Your task to perform on an android device: toggle javascript in the chrome app Image 0: 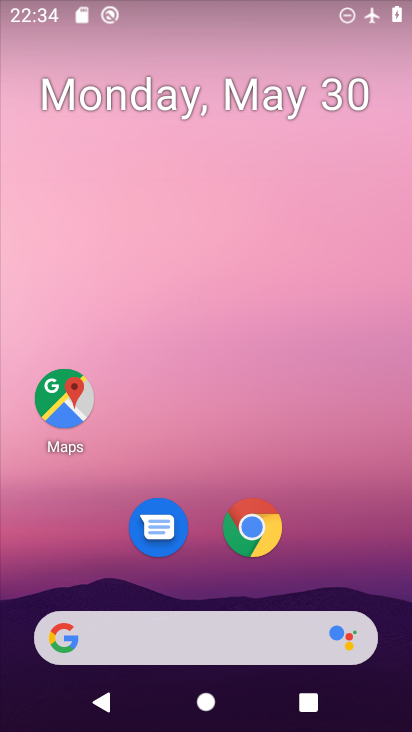
Step 0: drag from (336, 571) to (329, 278)
Your task to perform on an android device: toggle javascript in the chrome app Image 1: 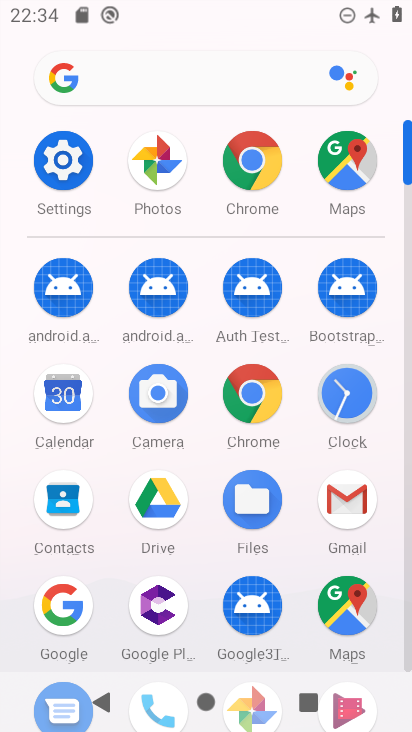
Step 1: click (248, 375)
Your task to perform on an android device: toggle javascript in the chrome app Image 2: 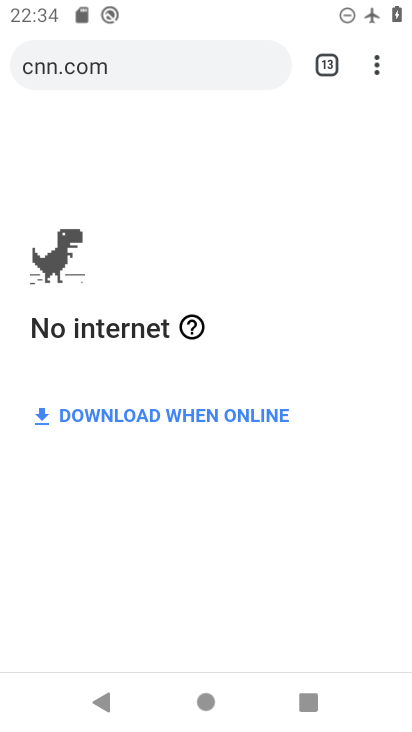
Step 2: click (370, 64)
Your task to perform on an android device: toggle javascript in the chrome app Image 3: 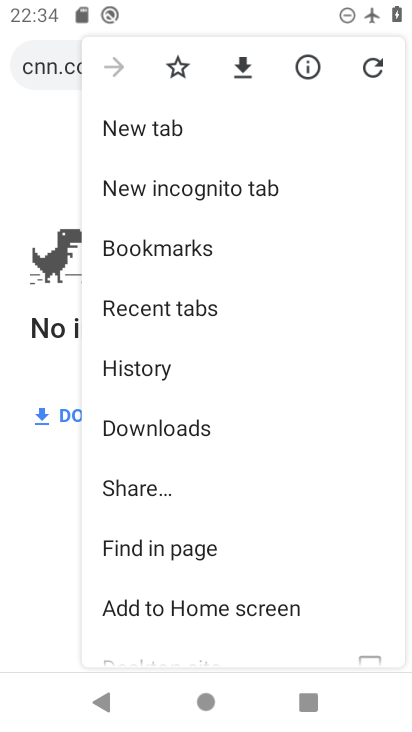
Step 3: drag from (202, 539) to (246, 306)
Your task to perform on an android device: toggle javascript in the chrome app Image 4: 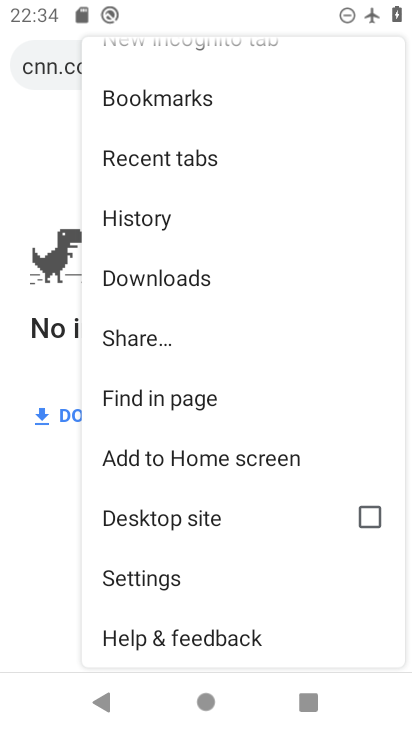
Step 4: click (201, 569)
Your task to perform on an android device: toggle javascript in the chrome app Image 5: 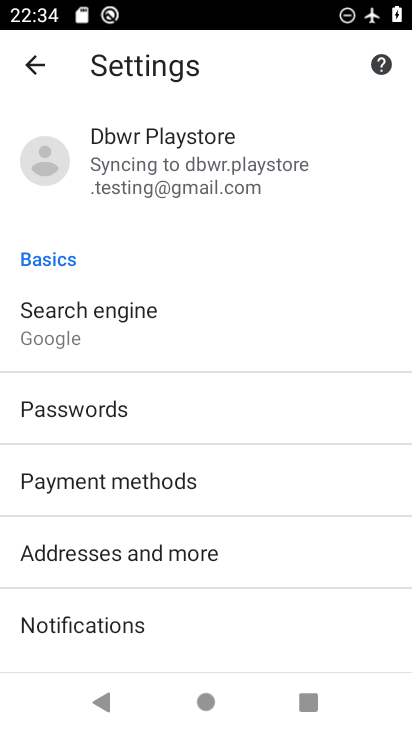
Step 5: drag from (180, 600) to (215, 241)
Your task to perform on an android device: toggle javascript in the chrome app Image 6: 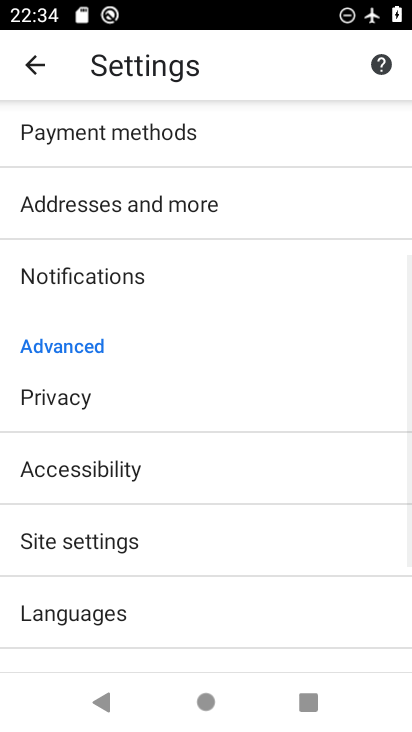
Step 6: drag from (223, 555) to (303, 255)
Your task to perform on an android device: toggle javascript in the chrome app Image 7: 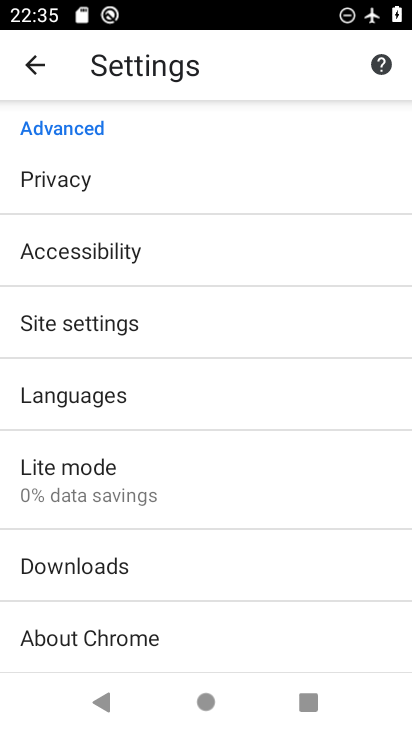
Step 7: drag from (221, 568) to (277, 284)
Your task to perform on an android device: toggle javascript in the chrome app Image 8: 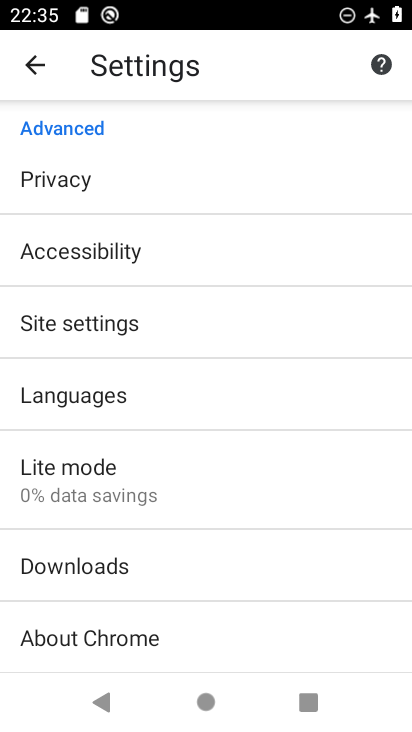
Step 8: drag from (212, 570) to (235, 459)
Your task to perform on an android device: toggle javascript in the chrome app Image 9: 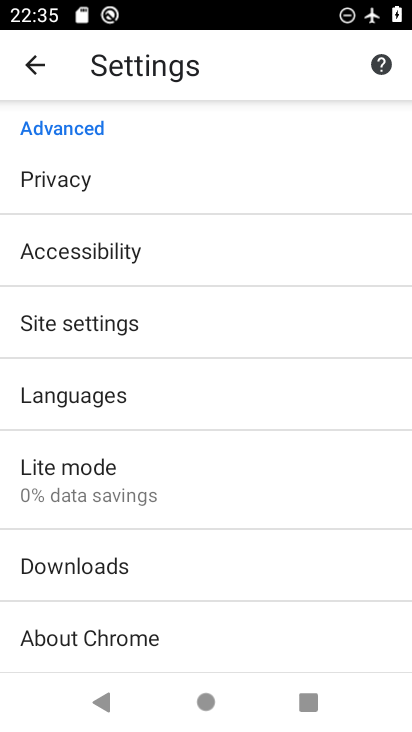
Step 9: click (203, 300)
Your task to perform on an android device: toggle javascript in the chrome app Image 10: 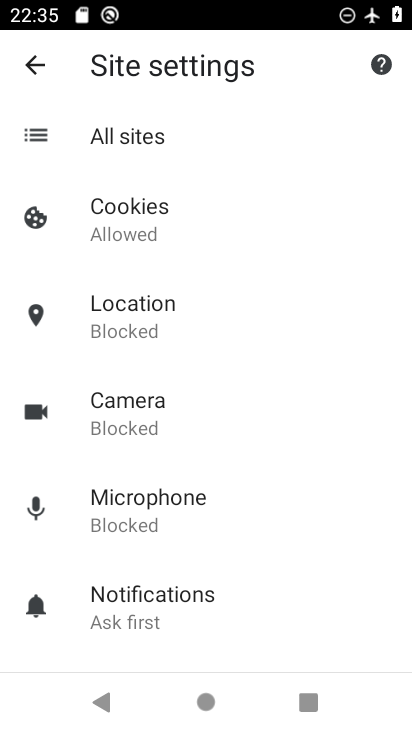
Step 10: drag from (217, 591) to (247, 309)
Your task to perform on an android device: toggle javascript in the chrome app Image 11: 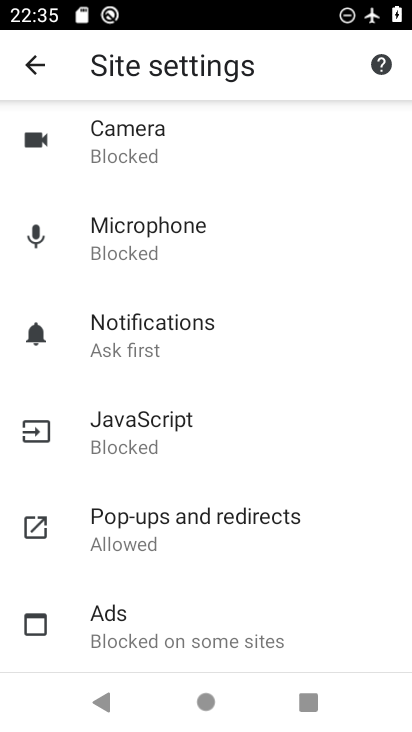
Step 11: click (160, 439)
Your task to perform on an android device: toggle javascript in the chrome app Image 12: 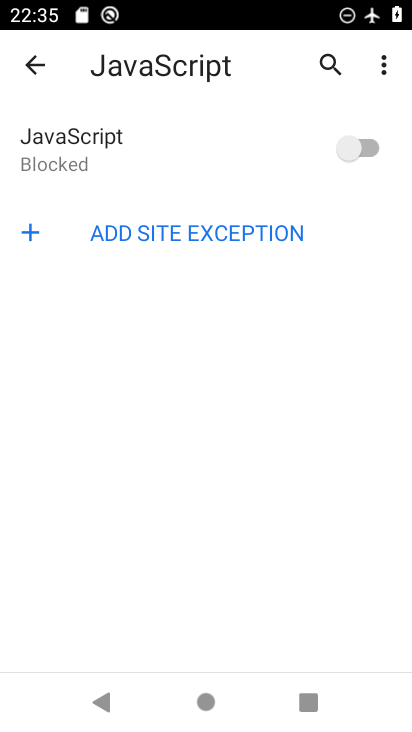
Step 12: task complete